Your task to perform on an android device: turn off location Image 0: 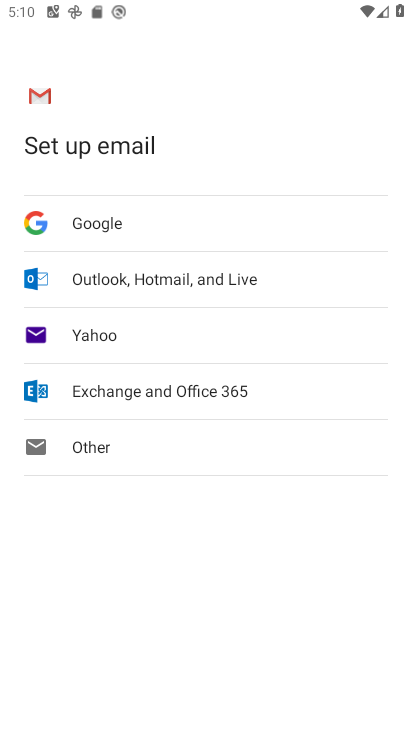
Step 0: press home button
Your task to perform on an android device: turn off location Image 1: 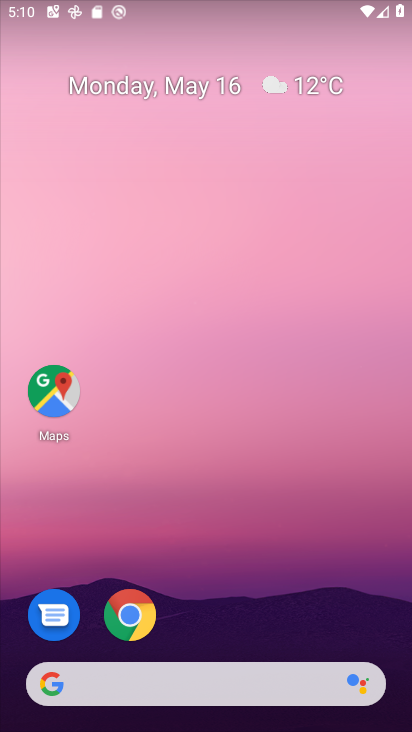
Step 1: drag from (233, 605) to (376, 0)
Your task to perform on an android device: turn off location Image 2: 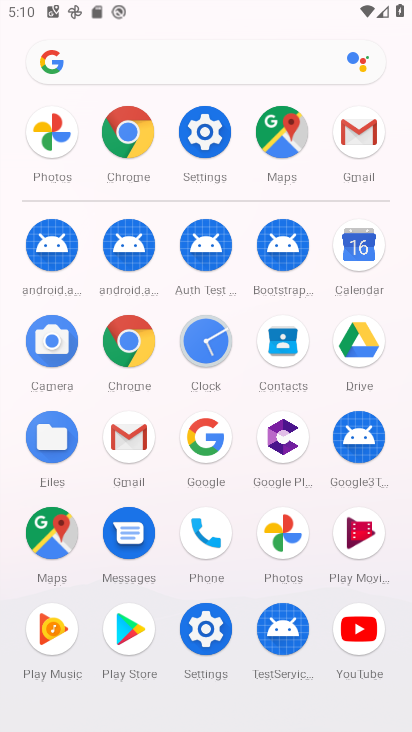
Step 2: click (202, 634)
Your task to perform on an android device: turn off location Image 3: 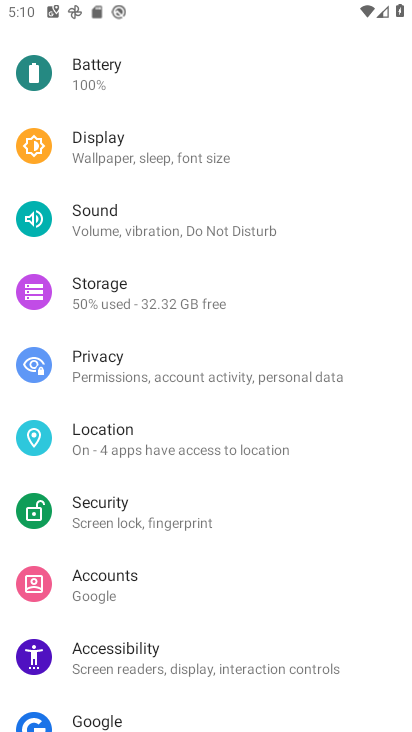
Step 3: click (87, 456)
Your task to perform on an android device: turn off location Image 4: 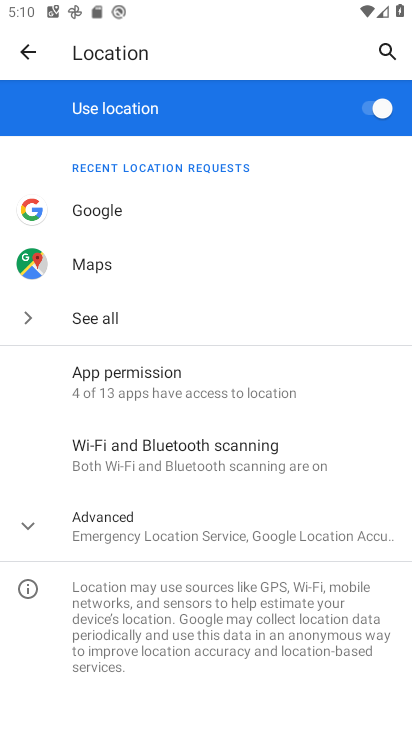
Step 4: click (119, 534)
Your task to perform on an android device: turn off location Image 5: 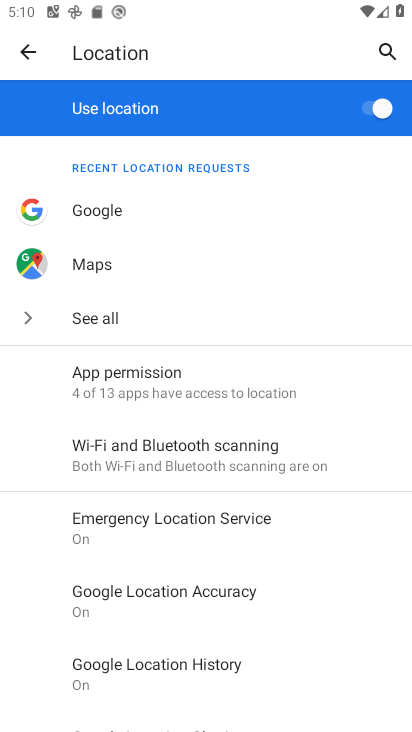
Step 5: click (361, 110)
Your task to perform on an android device: turn off location Image 6: 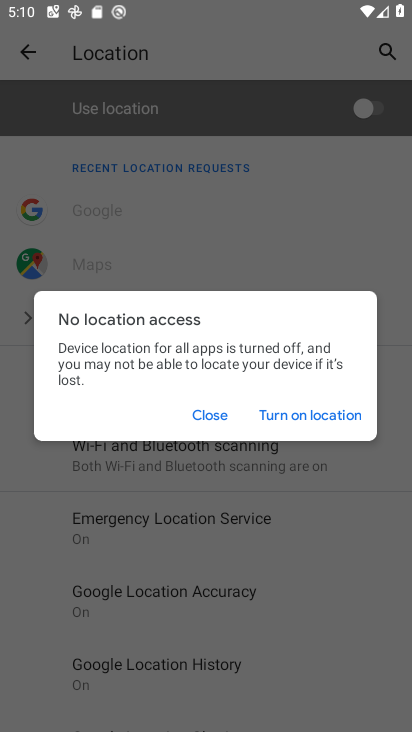
Step 6: task complete